Your task to perform on an android device: Search for Mexican restaurants on Maps Image 0: 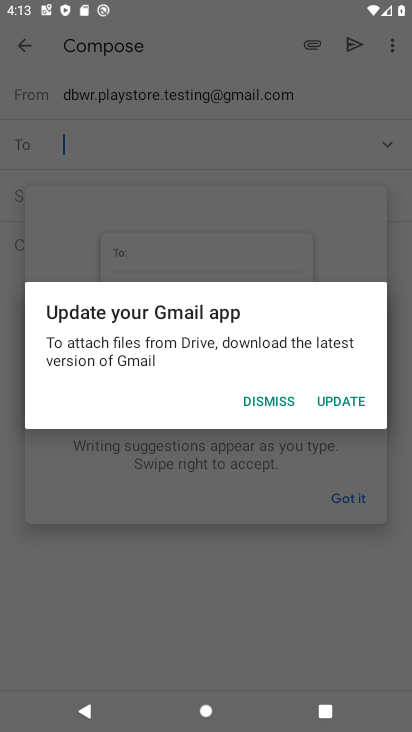
Step 0: press back button
Your task to perform on an android device: Search for Mexican restaurants on Maps Image 1: 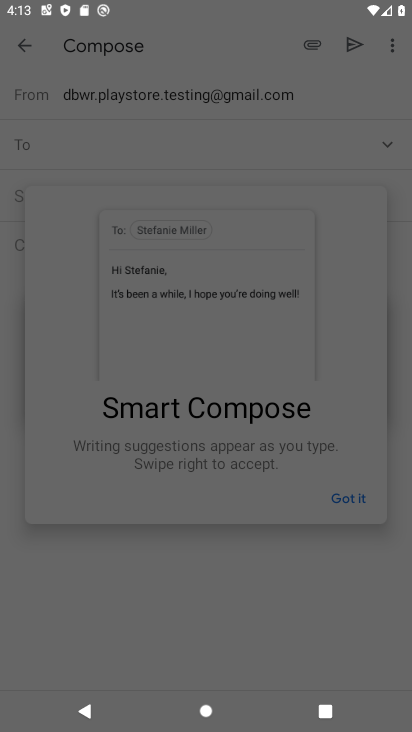
Step 1: press home button
Your task to perform on an android device: Search for Mexican restaurants on Maps Image 2: 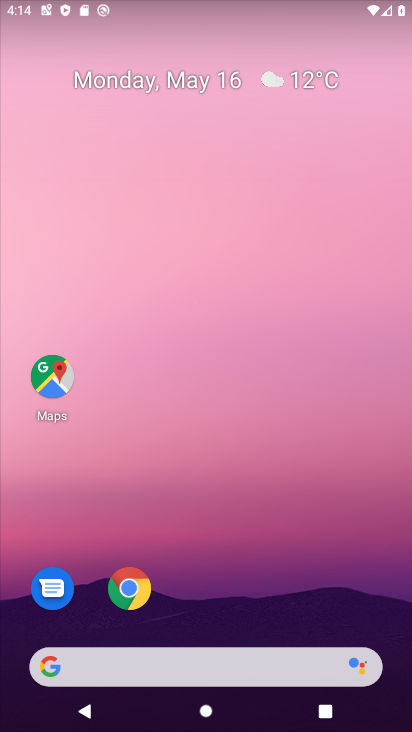
Step 2: click (61, 377)
Your task to perform on an android device: Search for Mexican restaurants on Maps Image 3: 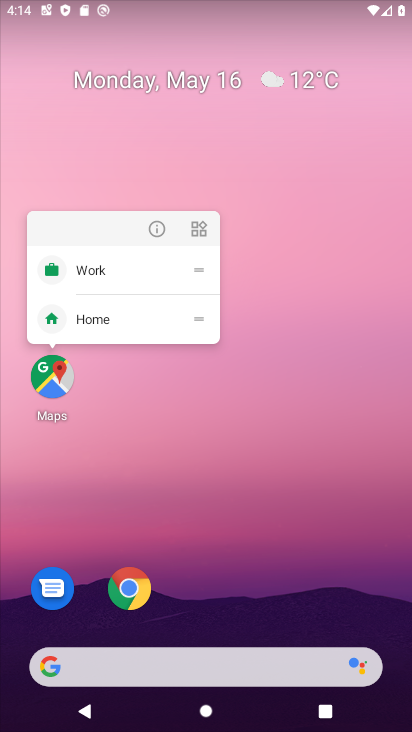
Step 3: click (45, 376)
Your task to perform on an android device: Search for Mexican restaurants on Maps Image 4: 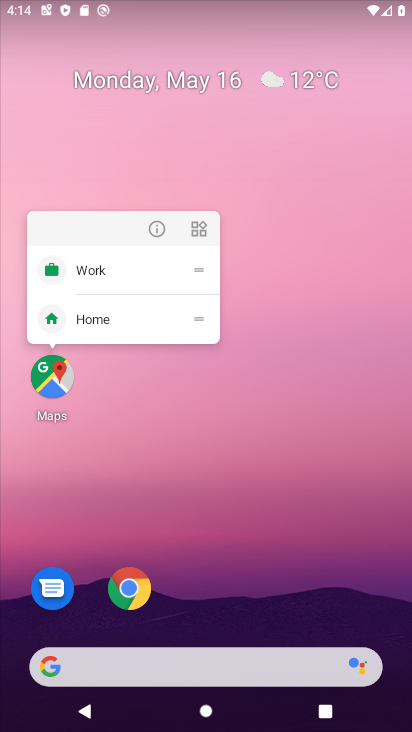
Step 4: click (47, 373)
Your task to perform on an android device: Search for Mexican restaurants on Maps Image 5: 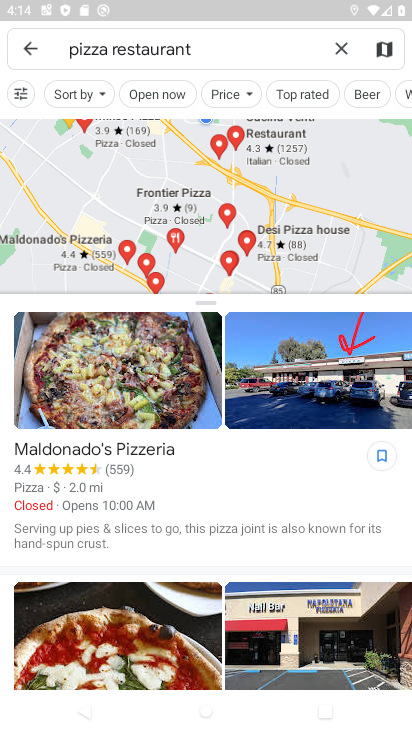
Step 5: click (333, 47)
Your task to perform on an android device: Search for Mexican restaurants on Maps Image 6: 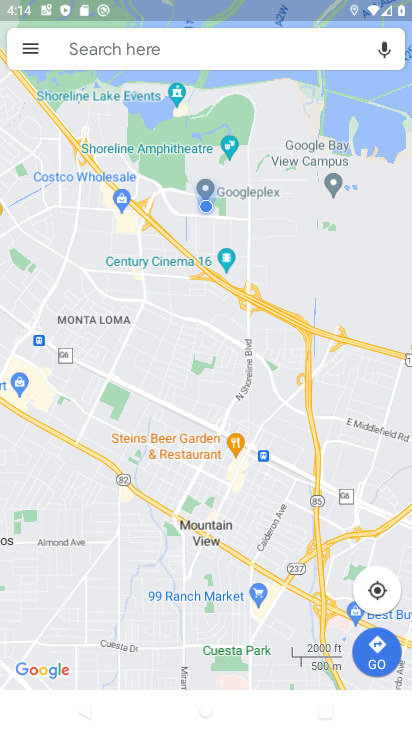
Step 6: click (101, 41)
Your task to perform on an android device: Search for Mexican restaurants on Maps Image 7: 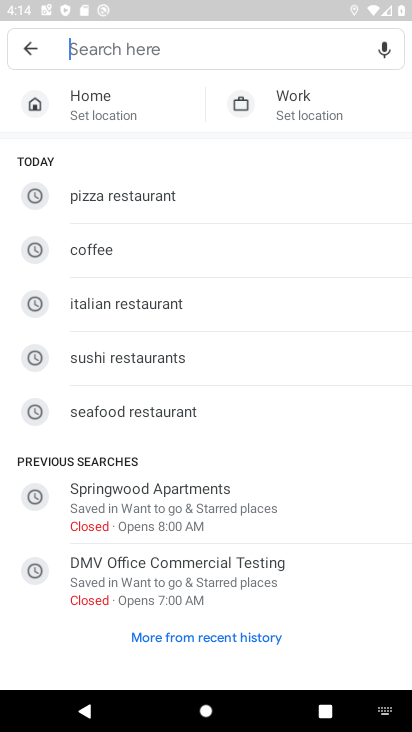
Step 7: type "mexican restaurats"
Your task to perform on an android device: Search for Mexican restaurants on Maps Image 8: 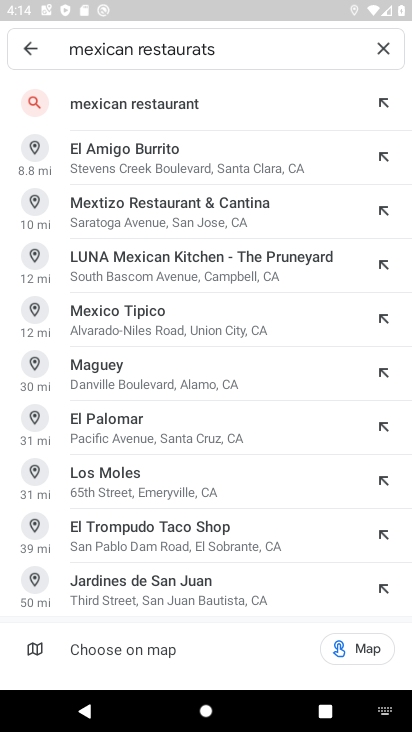
Step 8: click (181, 100)
Your task to perform on an android device: Search for Mexican restaurants on Maps Image 9: 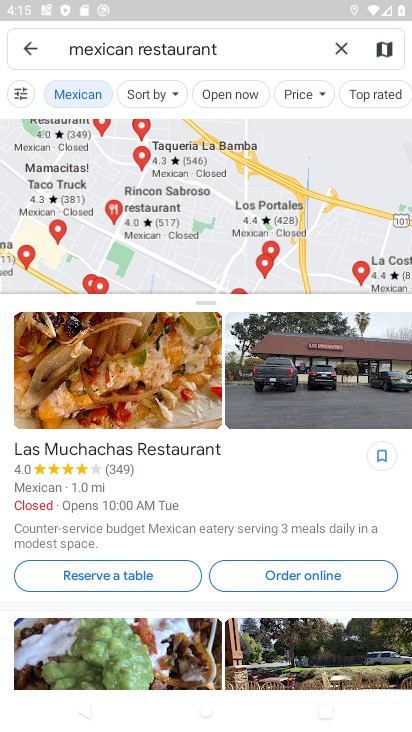
Step 9: task complete